Your task to perform on an android device: Check the news Image 0: 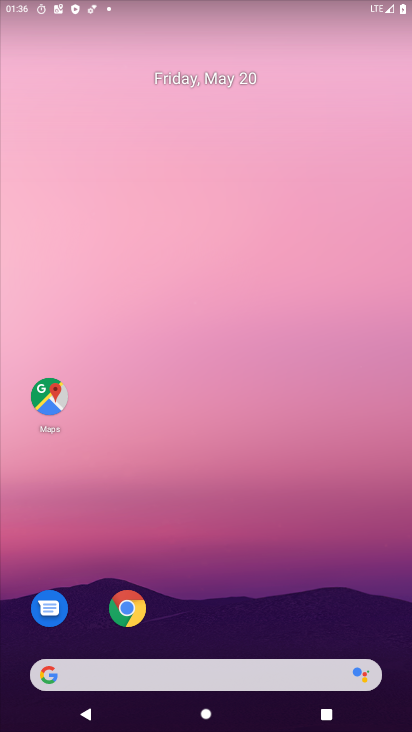
Step 0: drag from (339, 602) to (338, 101)
Your task to perform on an android device: Check the news Image 1: 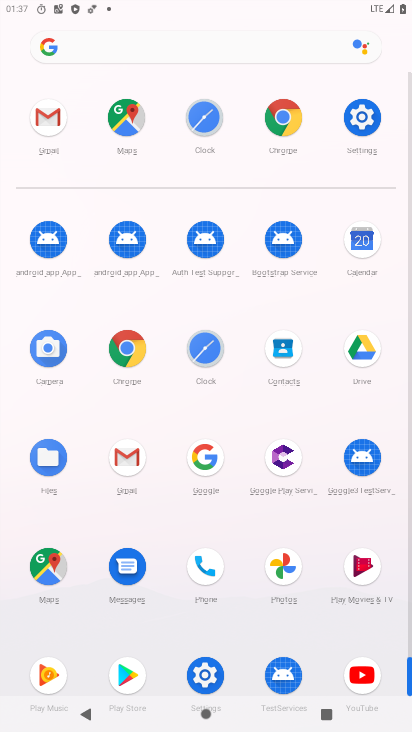
Step 1: click (140, 355)
Your task to perform on an android device: Check the news Image 2: 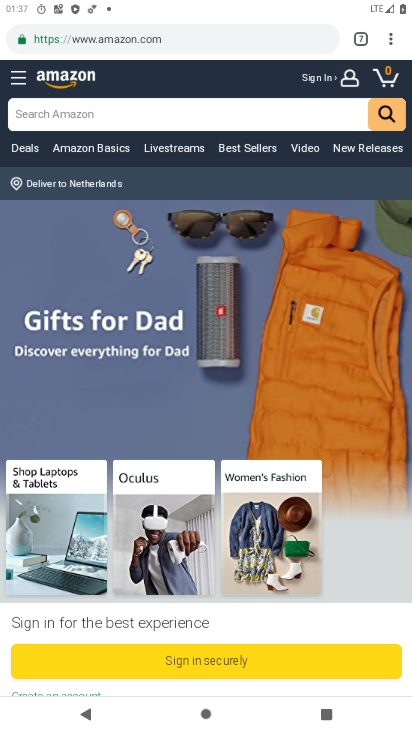
Step 2: click (167, 44)
Your task to perform on an android device: Check the news Image 3: 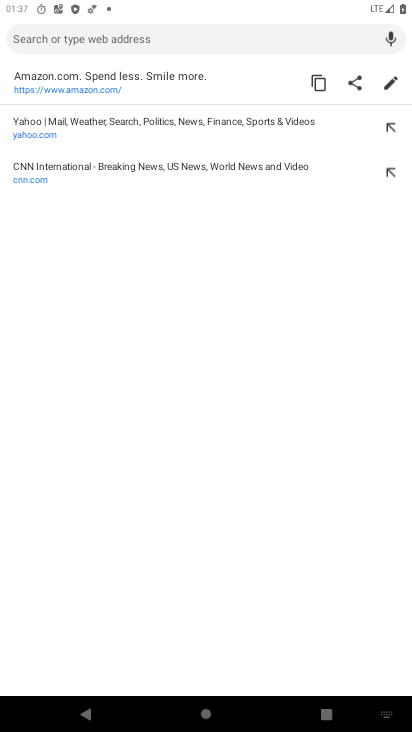
Step 3: type "check the news "
Your task to perform on an android device: Check the news Image 4: 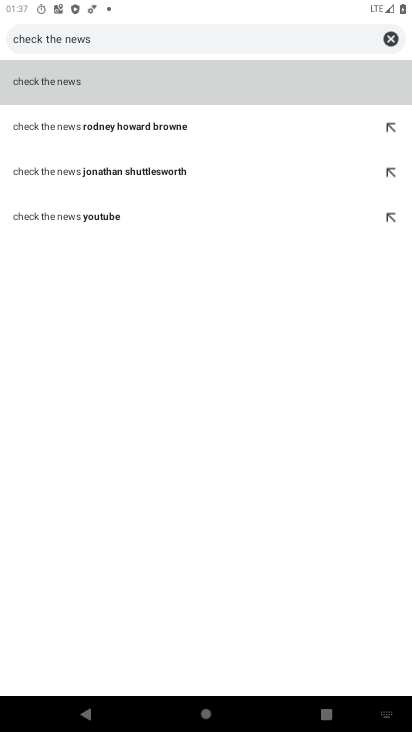
Step 4: click (94, 85)
Your task to perform on an android device: Check the news Image 5: 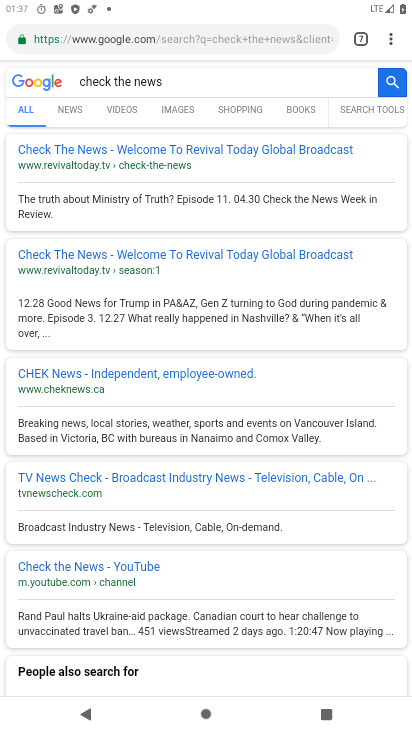
Step 5: task complete